Your task to perform on an android device: manage bookmarks in the chrome app Image 0: 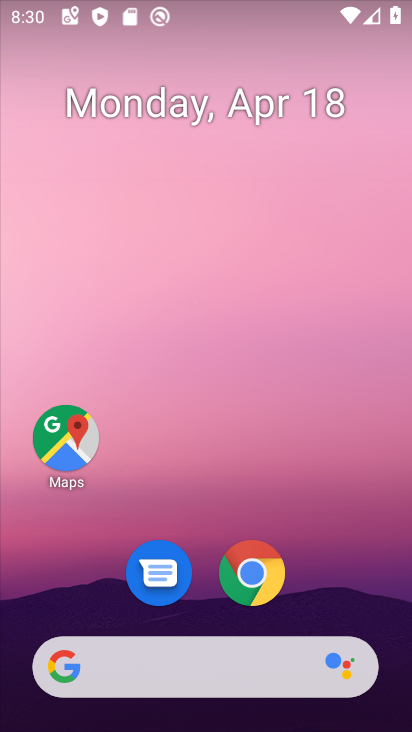
Step 0: click (257, 588)
Your task to perform on an android device: manage bookmarks in the chrome app Image 1: 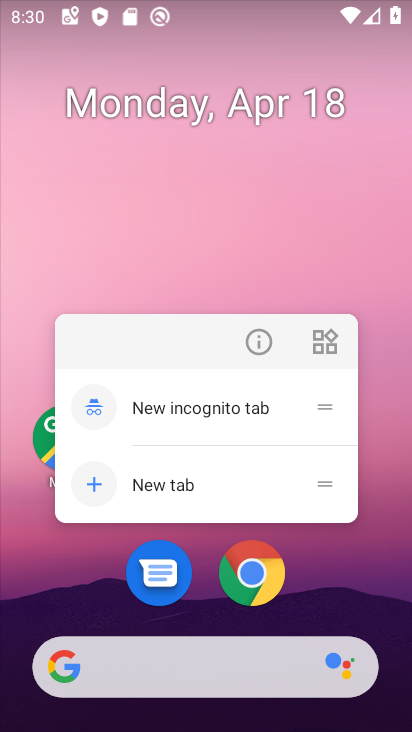
Step 1: click (264, 593)
Your task to perform on an android device: manage bookmarks in the chrome app Image 2: 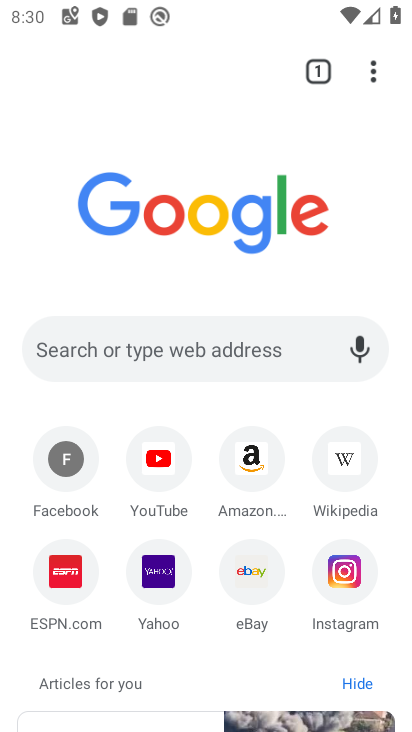
Step 2: click (377, 70)
Your task to perform on an android device: manage bookmarks in the chrome app Image 3: 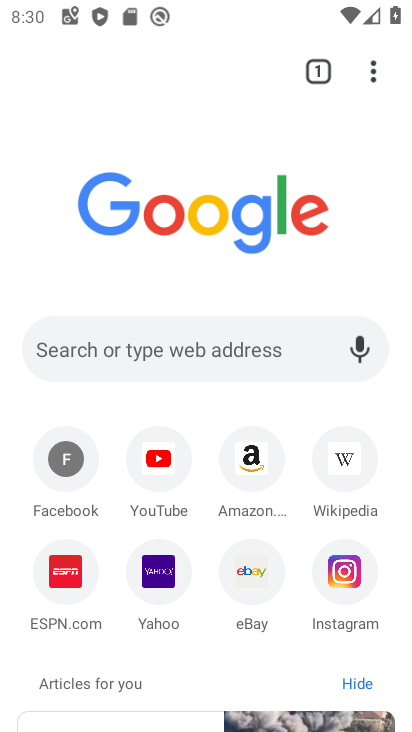
Step 3: drag from (376, 71) to (199, 275)
Your task to perform on an android device: manage bookmarks in the chrome app Image 4: 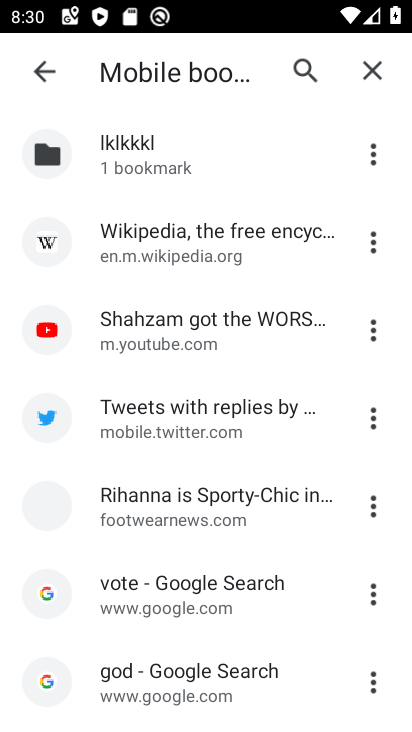
Step 4: click (370, 233)
Your task to perform on an android device: manage bookmarks in the chrome app Image 5: 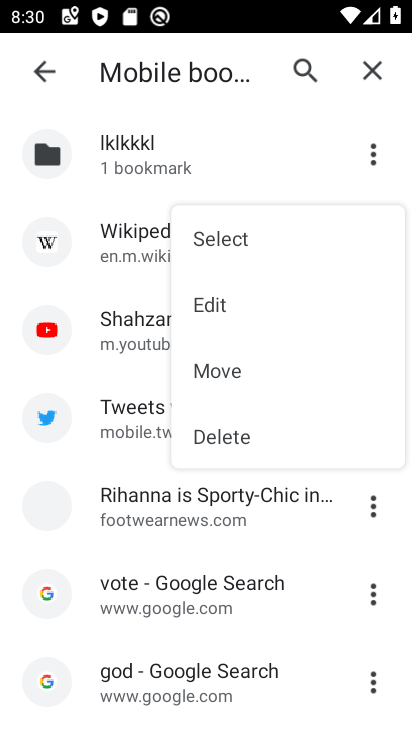
Step 5: click (226, 305)
Your task to perform on an android device: manage bookmarks in the chrome app Image 6: 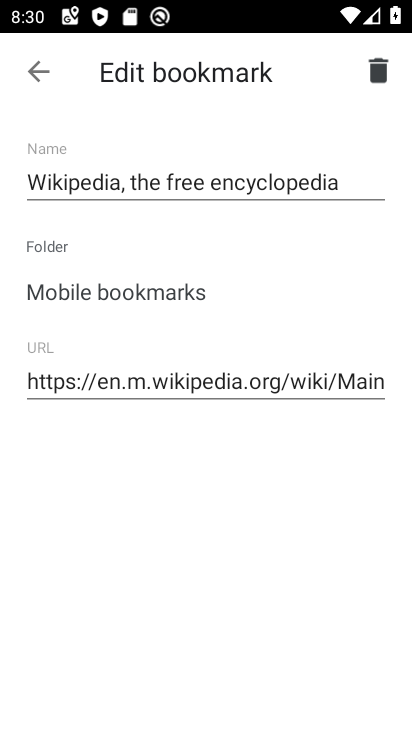
Step 6: click (180, 293)
Your task to perform on an android device: manage bookmarks in the chrome app Image 7: 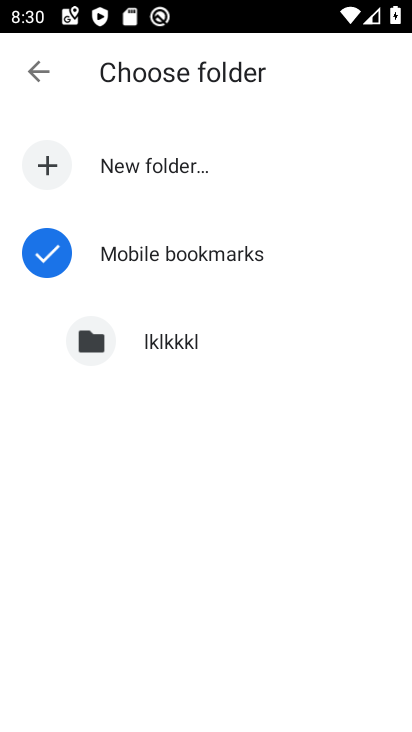
Step 7: click (181, 352)
Your task to perform on an android device: manage bookmarks in the chrome app Image 8: 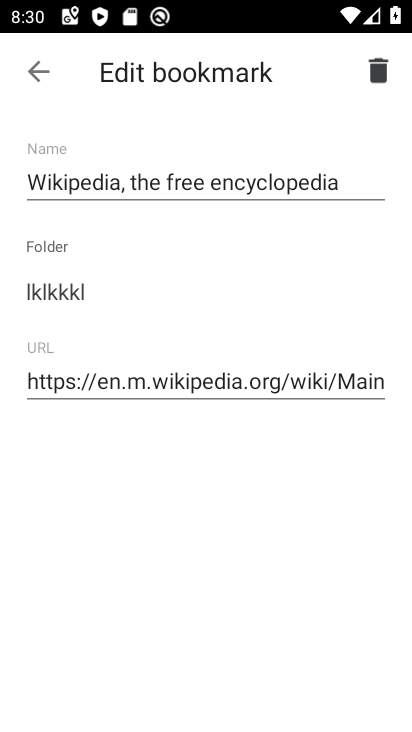
Step 8: task complete